Your task to perform on an android device: Search for 3d printed chess sets on Etsy. Image 0: 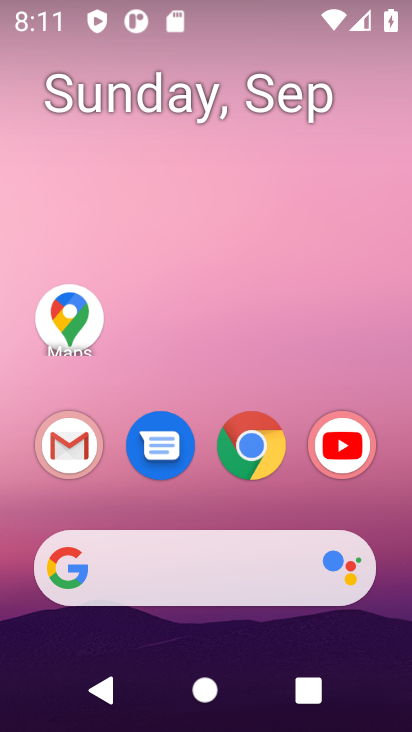
Step 0: drag from (172, 538) to (106, 0)
Your task to perform on an android device: Search for 3d printed chess sets on Etsy. Image 1: 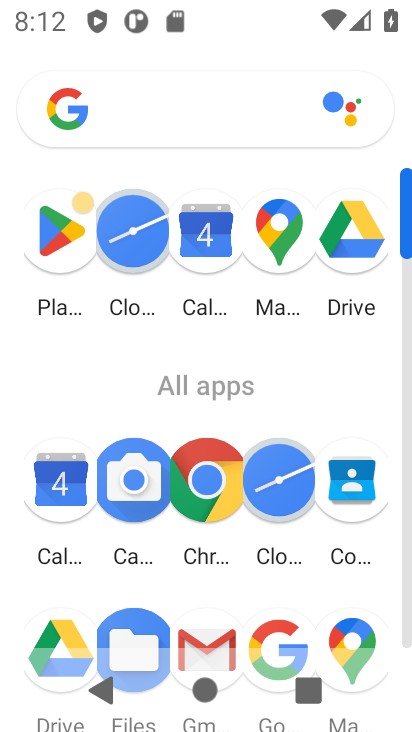
Step 1: click (225, 470)
Your task to perform on an android device: Search for 3d printed chess sets on Etsy. Image 2: 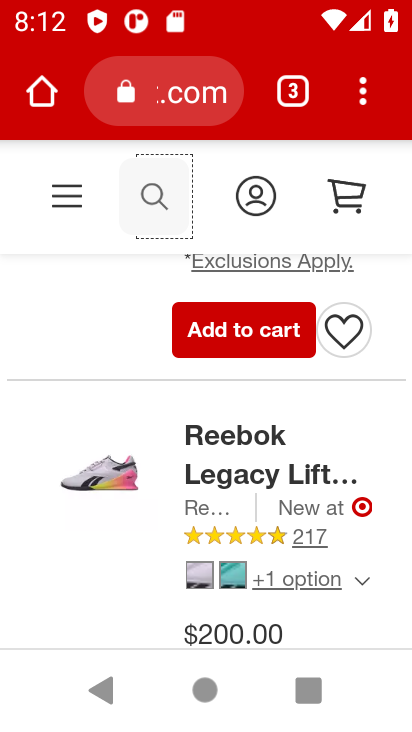
Step 2: click (170, 87)
Your task to perform on an android device: Search for 3d printed chess sets on Etsy. Image 3: 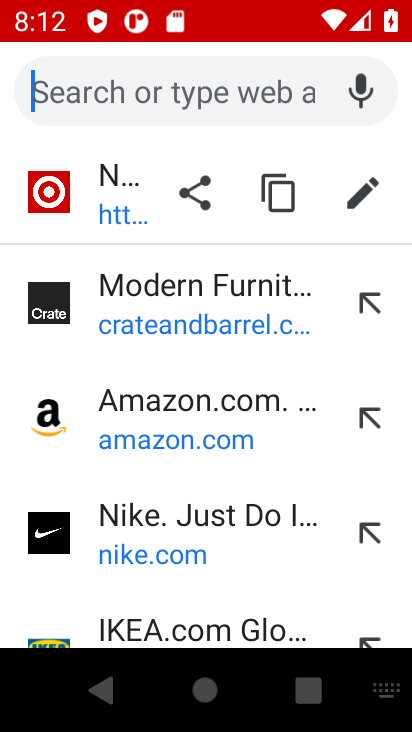
Step 3: press enter
Your task to perform on an android device: Search for 3d printed chess sets on Etsy. Image 4: 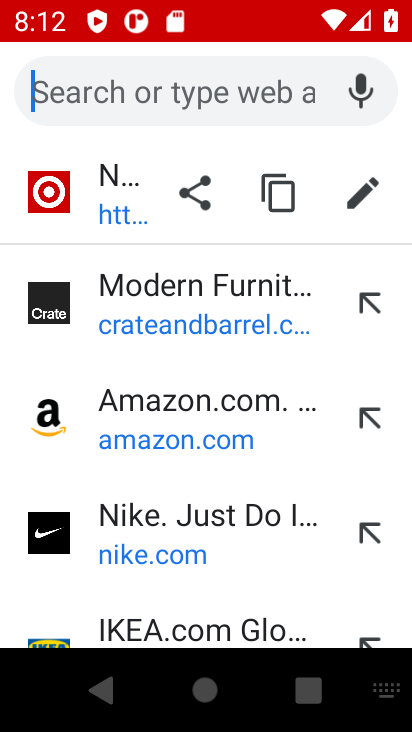
Step 4: type "Etsy"
Your task to perform on an android device: Search for 3d printed chess sets on Etsy. Image 5: 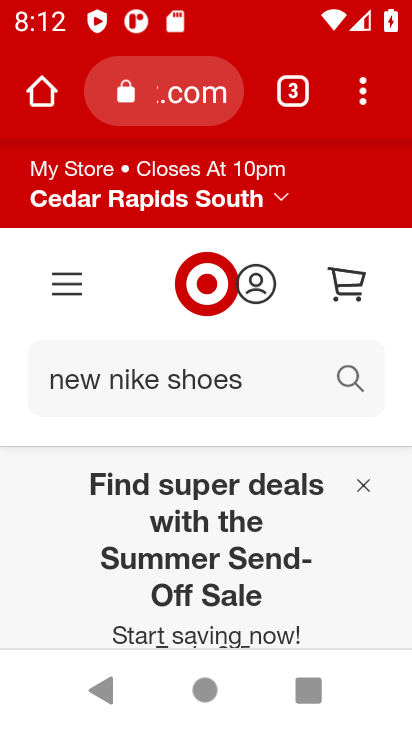
Step 5: click (218, 108)
Your task to perform on an android device: Search for 3d printed chess sets on Etsy. Image 6: 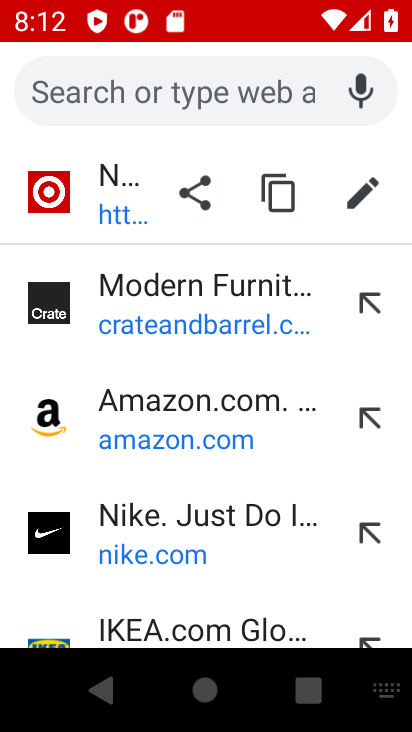
Step 6: type "Etsy"
Your task to perform on an android device: Search for 3d printed chess sets on Etsy. Image 7: 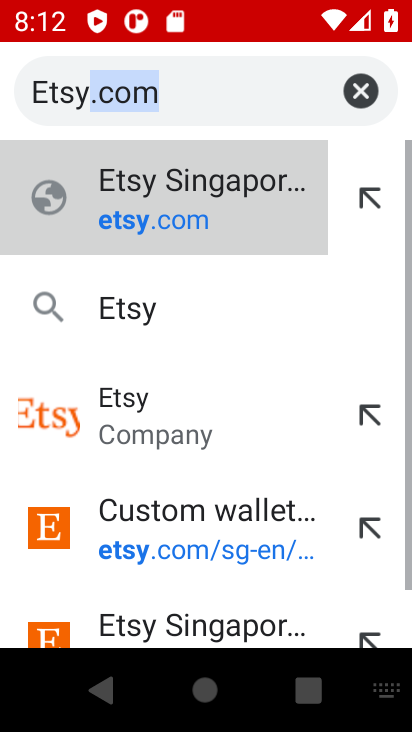
Step 7: press enter
Your task to perform on an android device: Search for 3d printed chess sets on Etsy. Image 8: 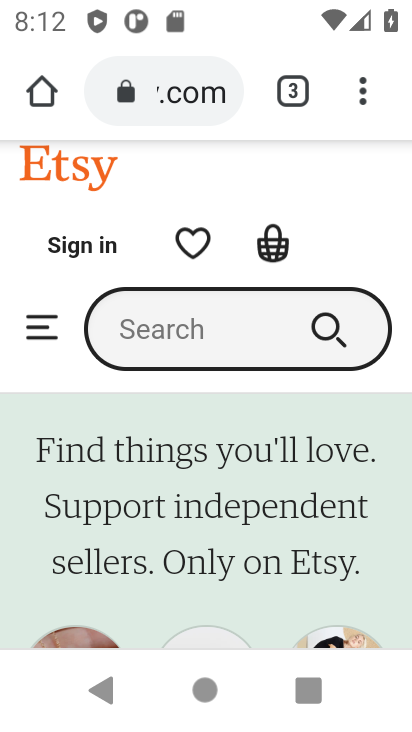
Step 8: click (182, 348)
Your task to perform on an android device: Search for 3d printed chess sets on Etsy. Image 9: 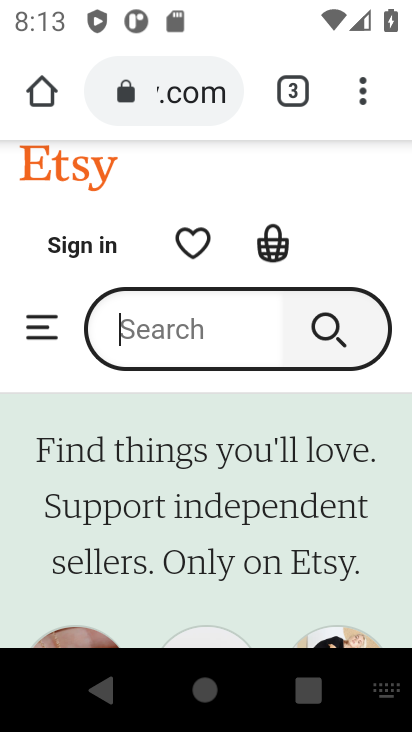
Step 9: type "3d printed chess"
Your task to perform on an android device: Search for 3d printed chess sets on Etsy. Image 10: 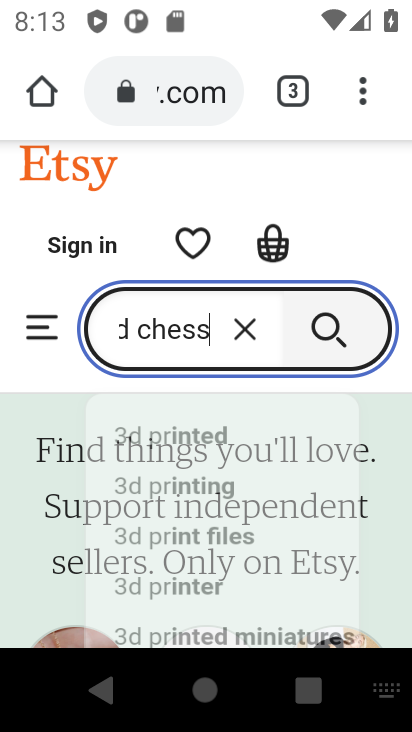
Step 10: press enter
Your task to perform on an android device: Search for 3d printed chess sets on Etsy. Image 11: 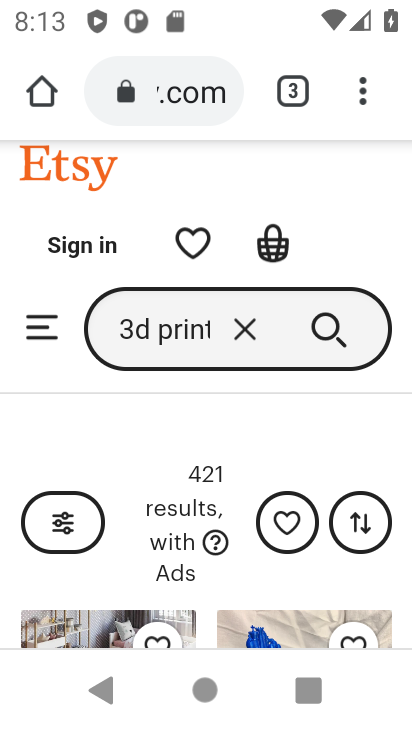
Step 11: click (202, 160)
Your task to perform on an android device: Search for 3d printed chess sets on Etsy. Image 12: 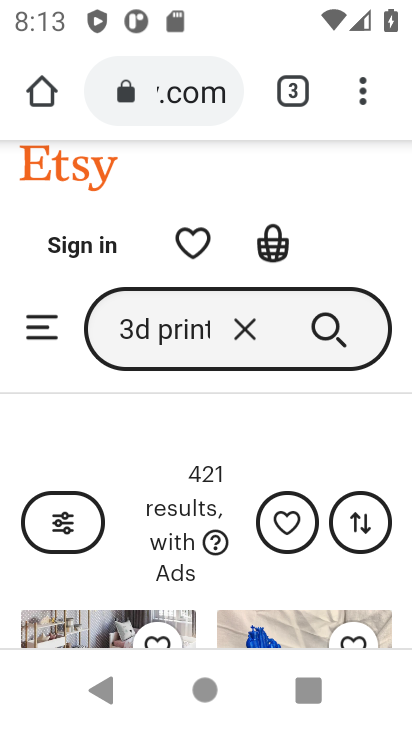
Step 12: drag from (142, 423) to (162, 314)
Your task to perform on an android device: Search for 3d printed chess sets on Etsy. Image 13: 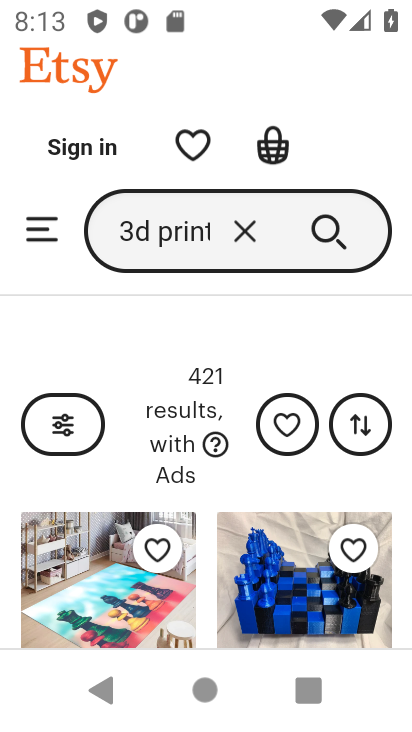
Step 13: drag from (168, 578) to (166, 288)
Your task to perform on an android device: Search for 3d printed chess sets on Etsy. Image 14: 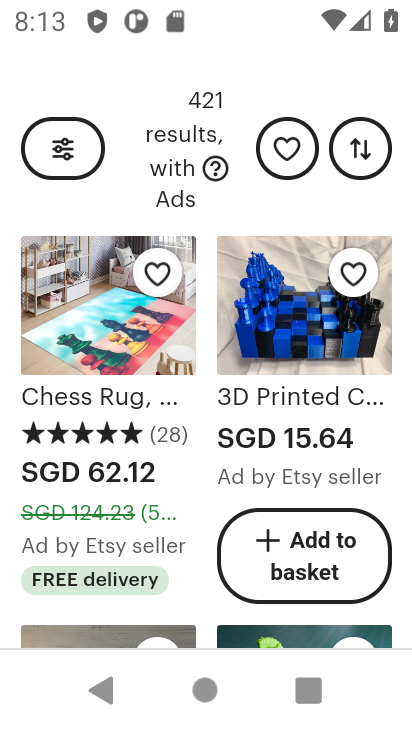
Step 14: drag from (125, 401) to (146, 345)
Your task to perform on an android device: Search for 3d printed chess sets on Etsy. Image 15: 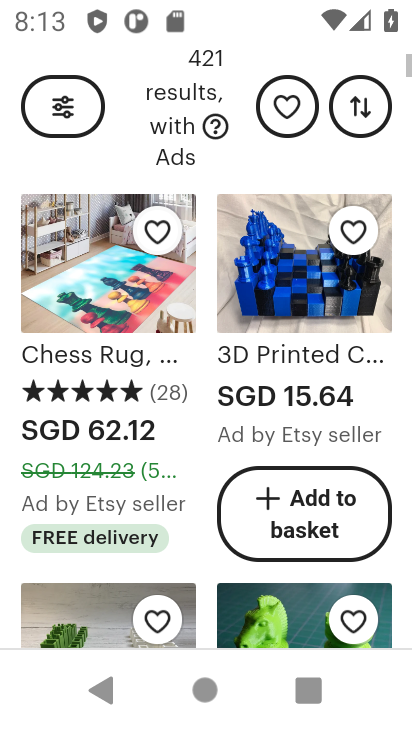
Step 15: drag from (110, 451) to (152, 265)
Your task to perform on an android device: Search for 3d printed chess sets on Etsy. Image 16: 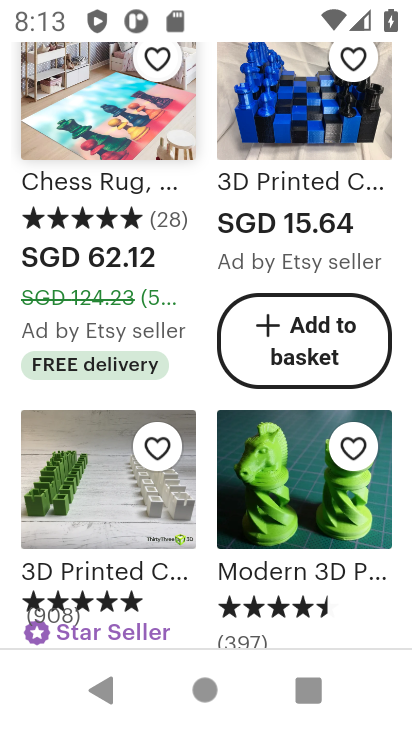
Step 16: click (159, 367)
Your task to perform on an android device: Search for 3d printed chess sets on Etsy. Image 17: 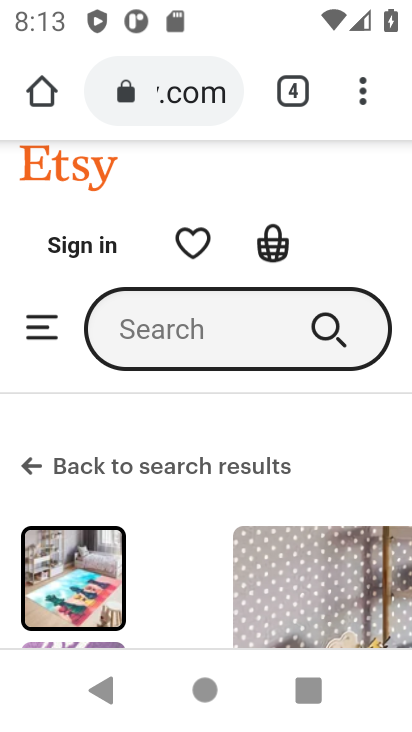
Step 17: task complete